Your task to perform on an android device: turn off notifications in google photos Image 0: 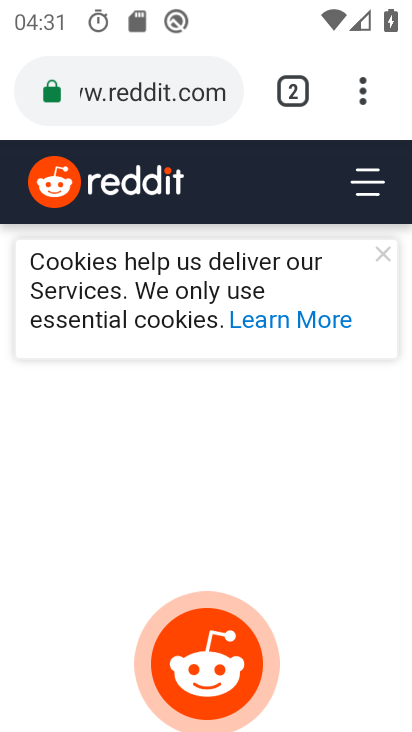
Step 0: press back button
Your task to perform on an android device: turn off notifications in google photos Image 1: 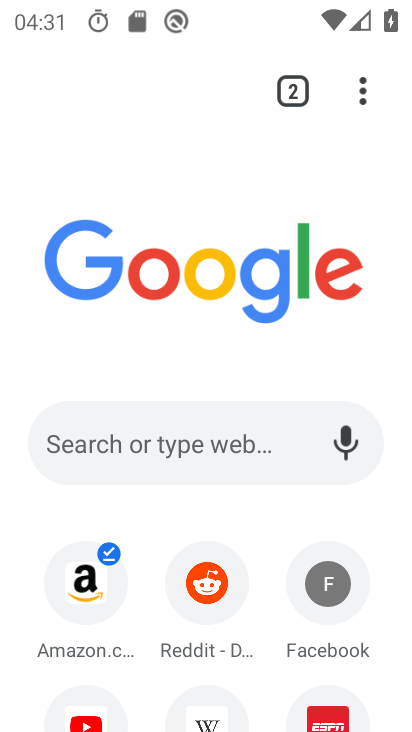
Step 1: press back button
Your task to perform on an android device: turn off notifications in google photos Image 2: 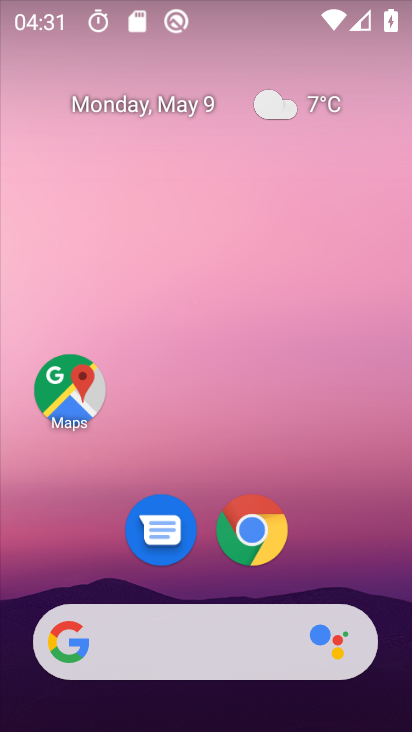
Step 2: drag from (244, 559) to (325, 59)
Your task to perform on an android device: turn off notifications in google photos Image 3: 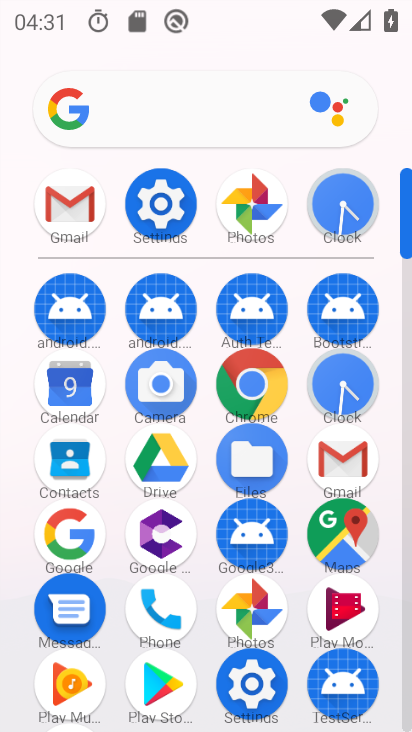
Step 3: click (256, 612)
Your task to perform on an android device: turn off notifications in google photos Image 4: 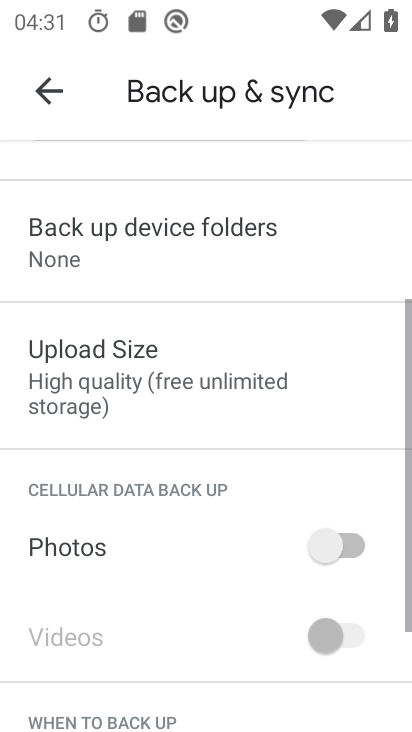
Step 4: drag from (111, 648) to (98, 681)
Your task to perform on an android device: turn off notifications in google photos Image 5: 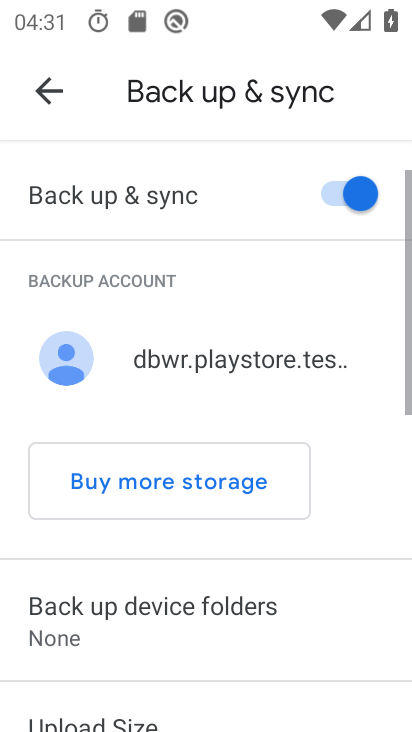
Step 5: drag from (177, 298) to (123, 685)
Your task to perform on an android device: turn off notifications in google photos Image 6: 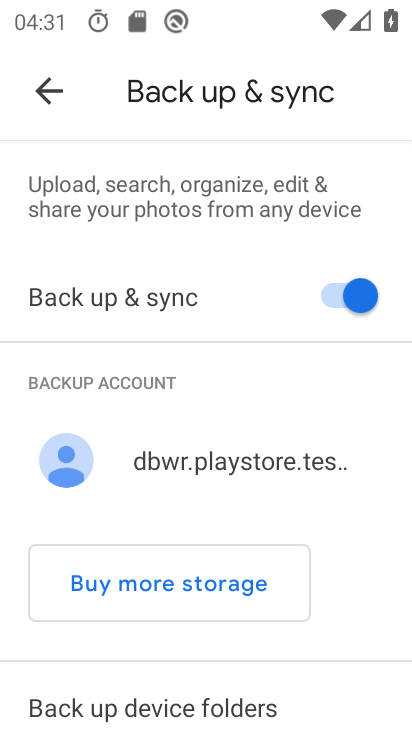
Step 6: drag from (193, 312) to (126, 731)
Your task to perform on an android device: turn off notifications in google photos Image 7: 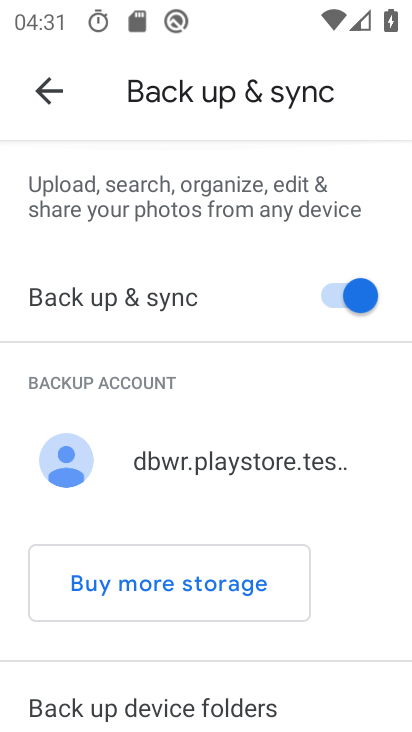
Step 7: drag from (146, 644) to (276, 103)
Your task to perform on an android device: turn off notifications in google photos Image 8: 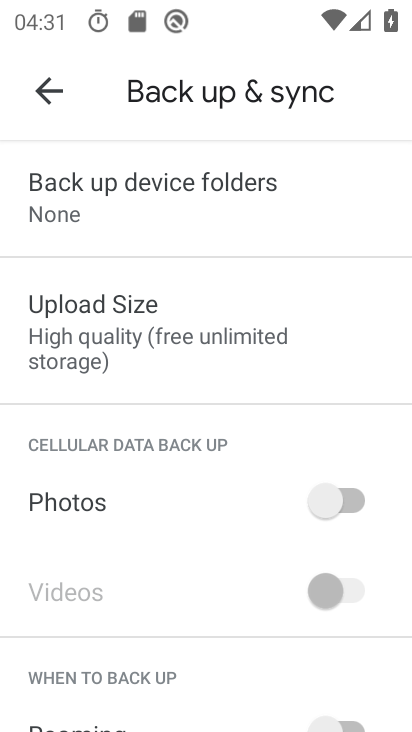
Step 8: click (57, 100)
Your task to perform on an android device: turn off notifications in google photos Image 9: 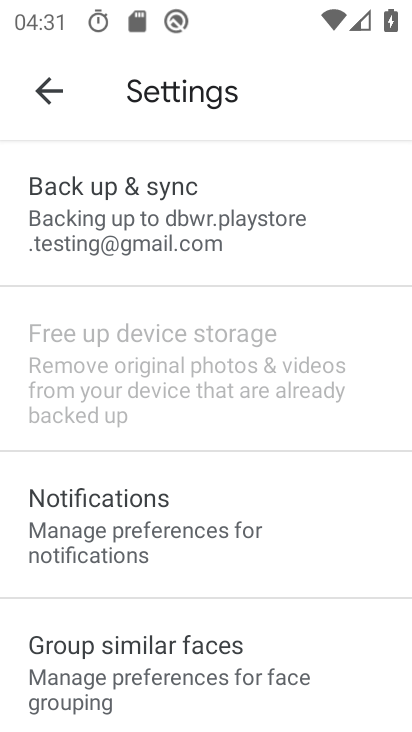
Step 9: click (91, 519)
Your task to perform on an android device: turn off notifications in google photos Image 10: 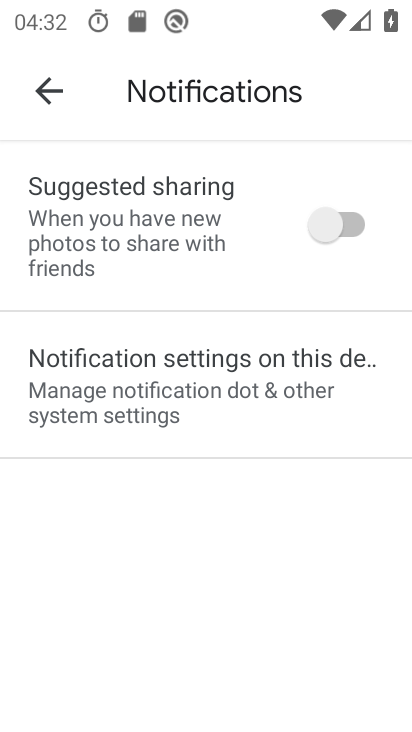
Step 10: click (190, 376)
Your task to perform on an android device: turn off notifications in google photos Image 11: 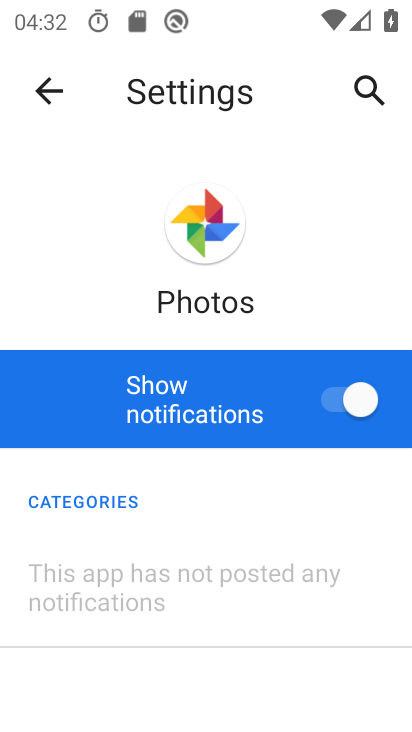
Step 11: click (355, 400)
Your task to perform on an android device: turn off notifications in google photos Image 12: 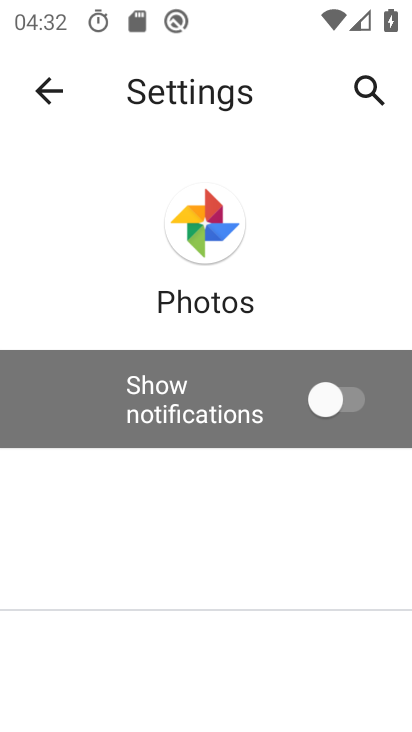
Step 12: task complete